Your task to perform on an android device: change the upload size in google photos Image 0: 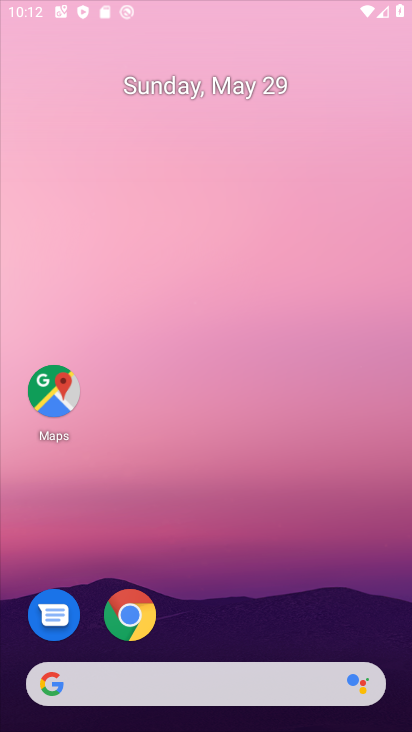
Step 0: click (128, 623)
Your task to perform on an android device: change the upload size in google photos Image 1: 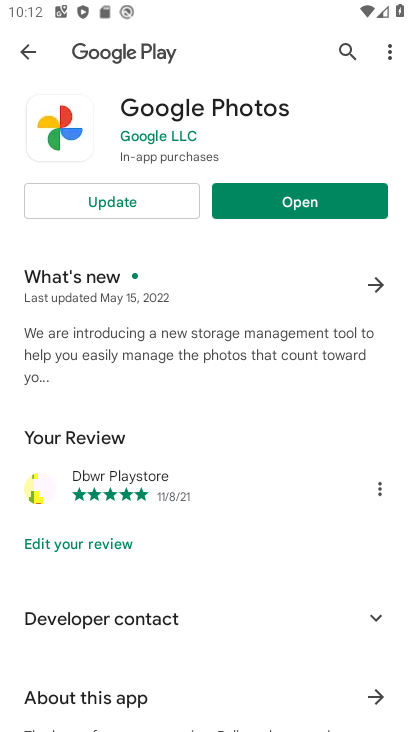
Step 1: press home button
Your task to perform on an android device: change the upload size in google photos Image 2: 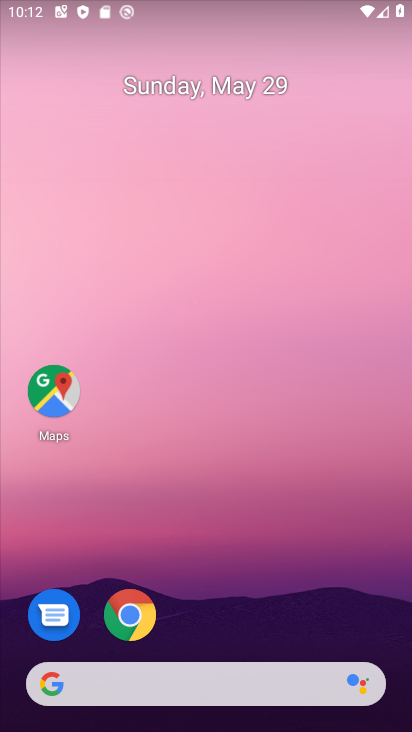
Step 2: drag from (215, 657) to (150, 50)
Your task to perform on an android device: change the upload size in google photos Image 3: 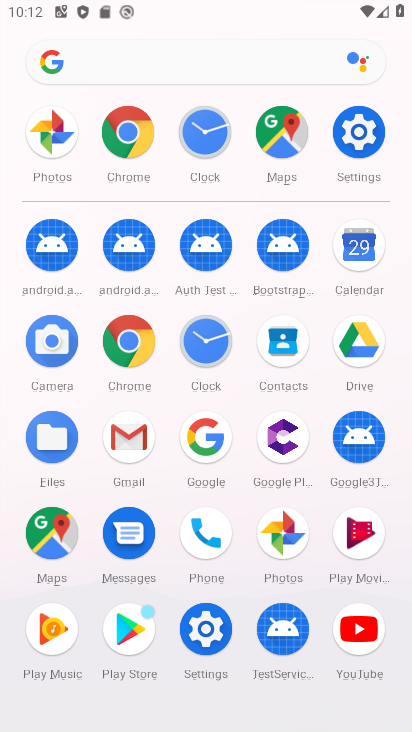
Step 3: click (291, 529)
Your task to perform on an android device: change the upload size in google photos Image 4: 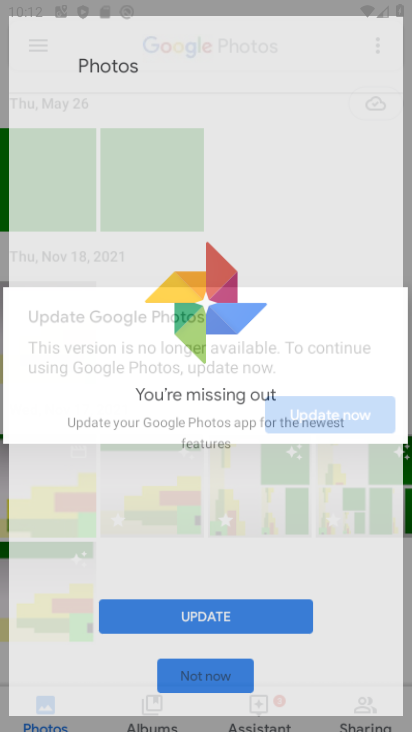
Step 4: click (307, 397)
Your task to perform on an android device: change the upload size in google photos Image 5: 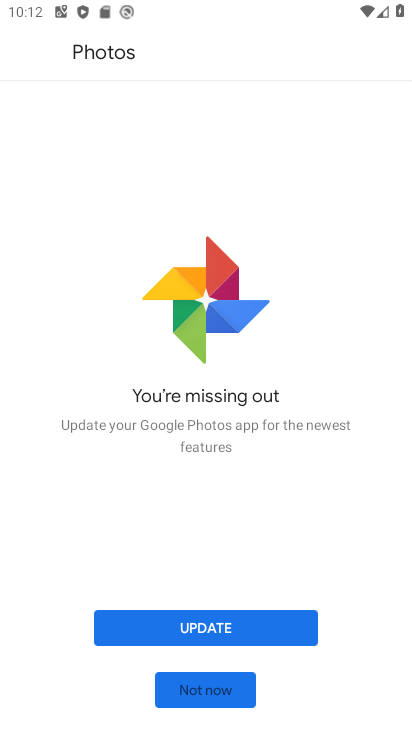
Step 5: click (214, 683)
Your task to perform on an android device: change the upload size in google photos Image 6: 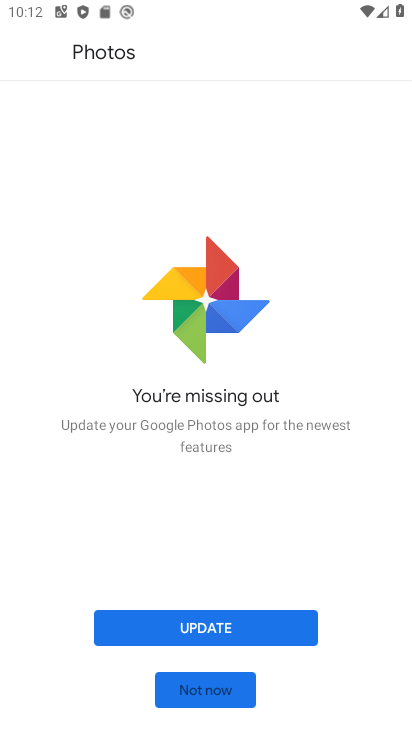
Step 6: click (194, 694)
Your task to perform on an android device: change the upload size in google photos Image 7: 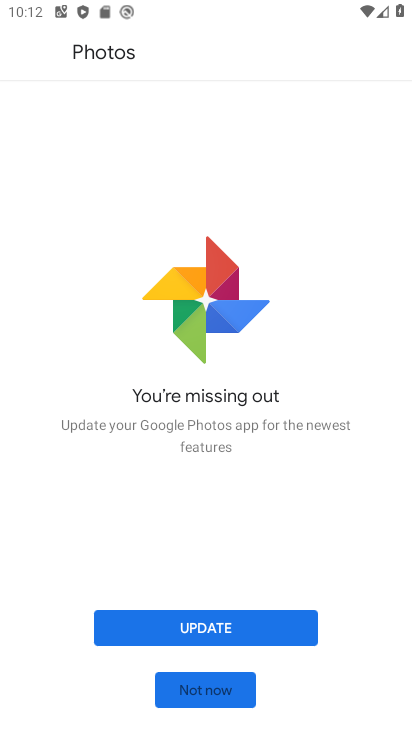
Step 7: click (219, 702)
Your task to perform on an android device: change the upload size in google photos Image 8: 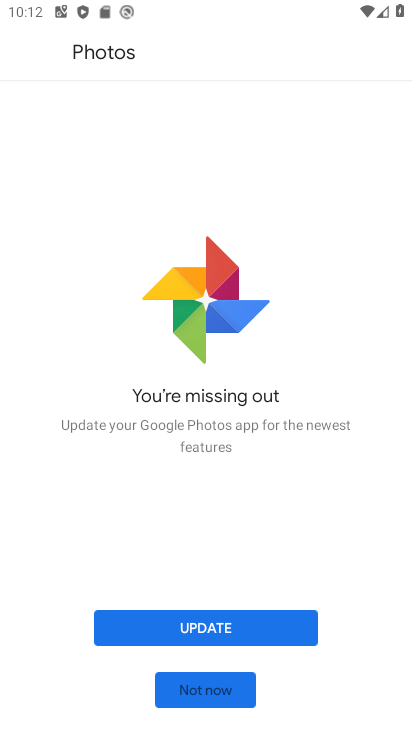
Step 8: click (220, 698)
Your task to perform on an android device: change the upload size in google photos Image 9: 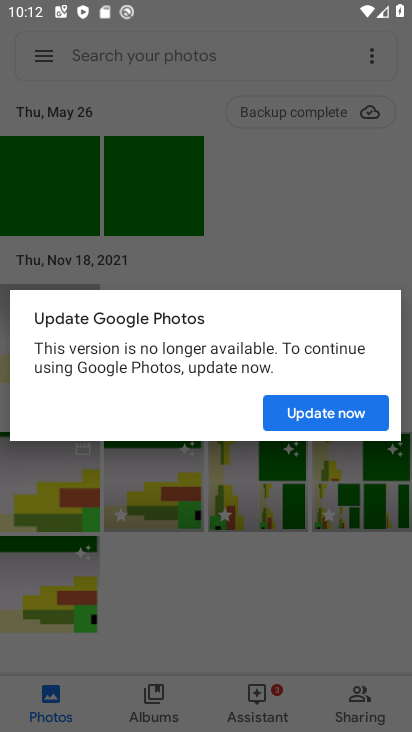
Step 9: click (339, 426)
Your task to perform on an android device: change the upload size in google photos Image 10: 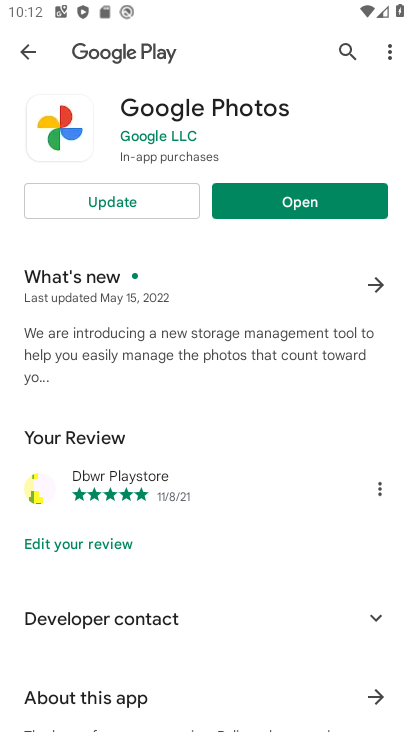
Step 10: click (340, 191)
Your task to perform on an android device: change the upload size in google photos Image 11: 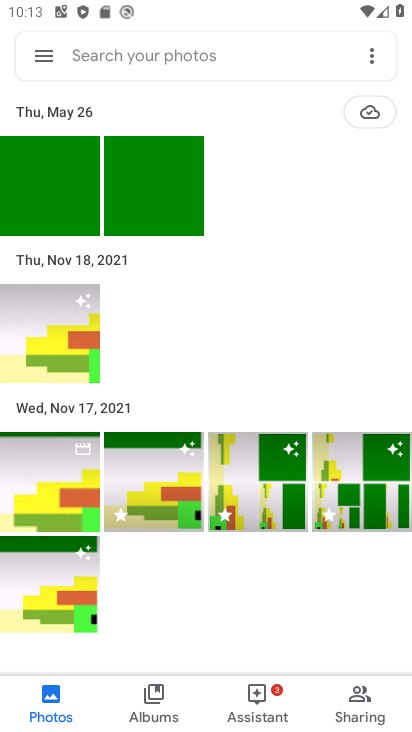
Step 11: click (48, 52)
Your task to perform on an android device: change the upload size in google photos Image 12: 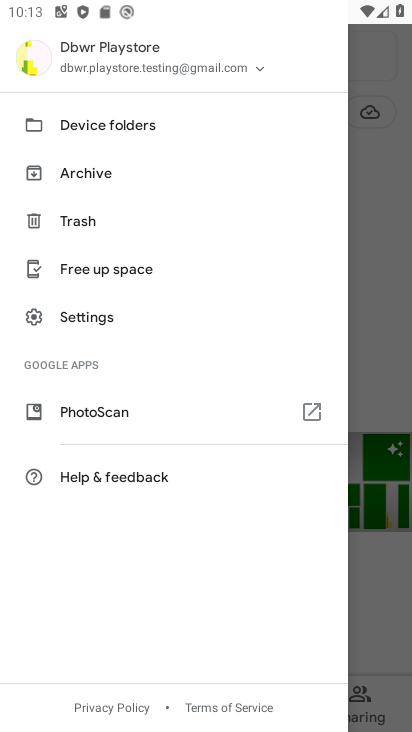
Step 12: click (54, 325)
Your task to perform on an android device: change the upload size in google photos Image 13: 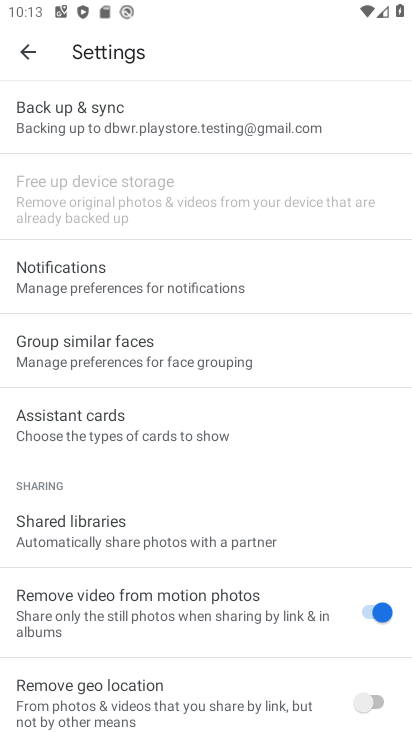
Step 13: click (56, 125)
Your task to perform on an android device: change the upload size in google photos Image 14: 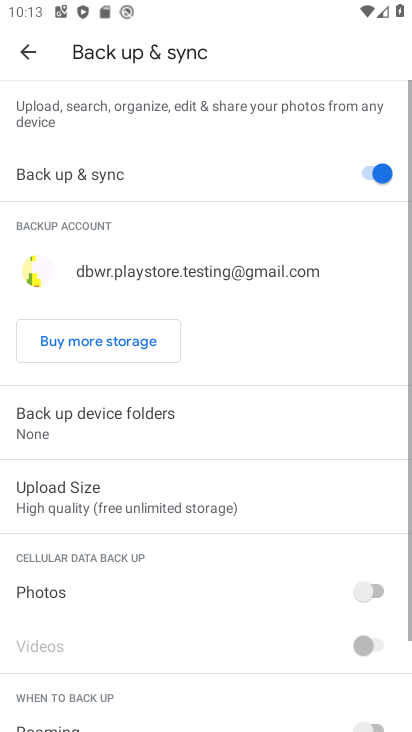
Step 14: click (131, 492)
Your task to perform on an android device: change the upload size in google photos Image 15: 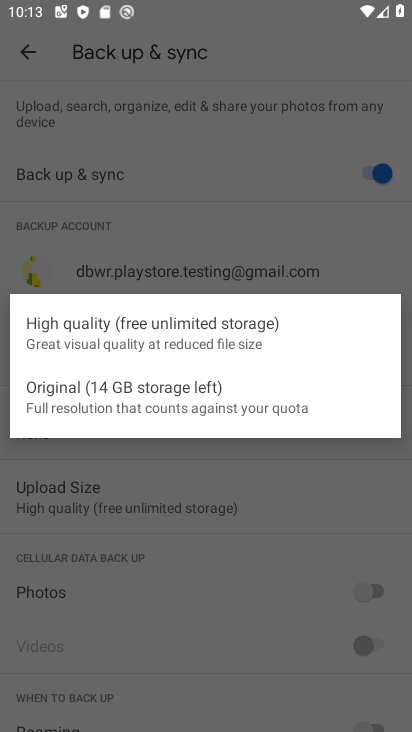
Step 15: click (105, 420)
Your task to perform on an android device: change the upload size in google photos Image 16: 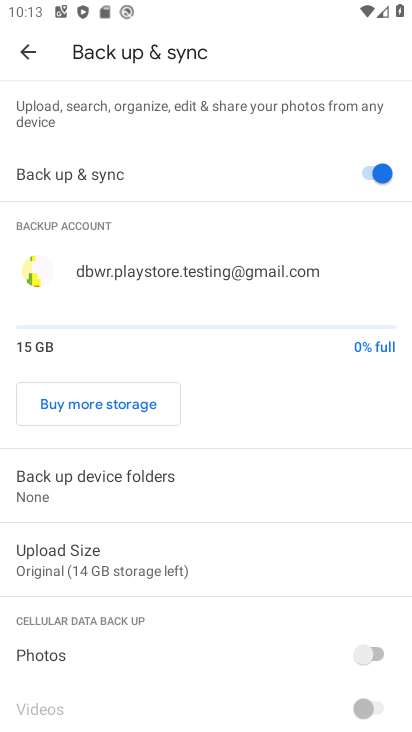
Step 16: task complete